Your task to perform on an android device: turn on location history Image 0: 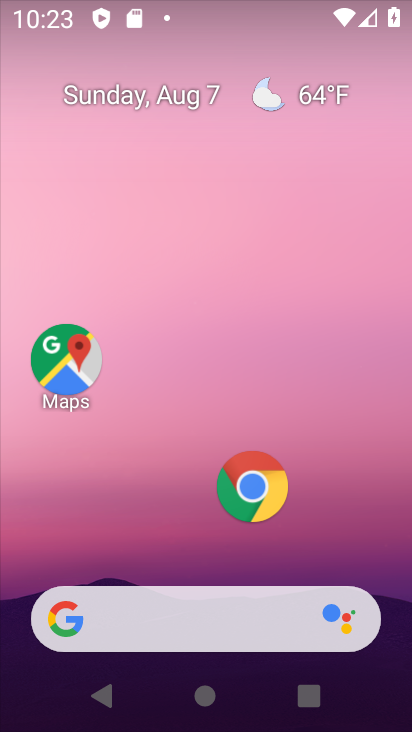
Step 0: drag from (127, 569) to (184, 86)
Your task to perform on an android device: turn on location history Image 1: 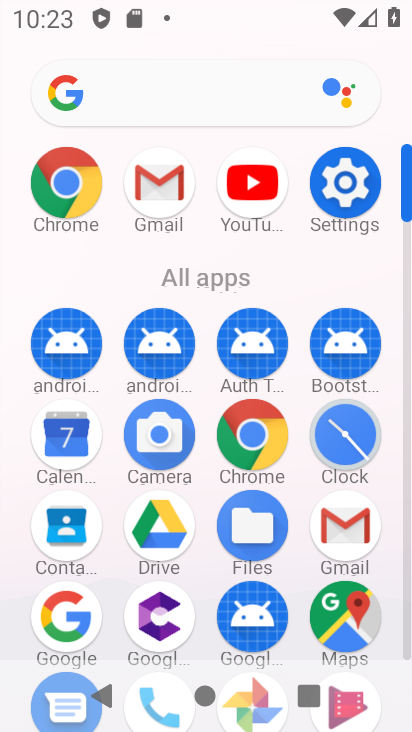
Step 1: drag from (175, 566) to (149, 118)
Your task to perform on an android device: turn on location history Image 2: 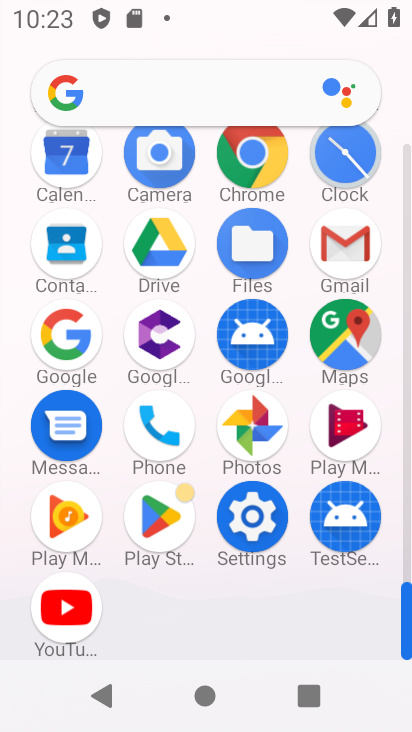
Step 2: click (346, 342)
Your task to perform on an android device: turn on location history Image 3: 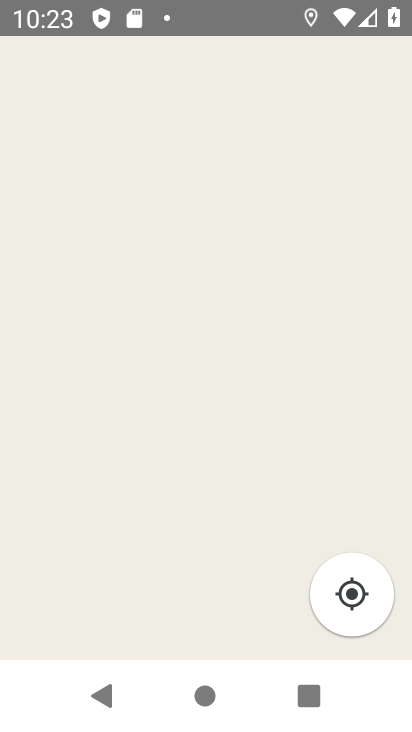
Step 3: task complete